Your task to perform on an android device: Go to CNN.com Image 0: 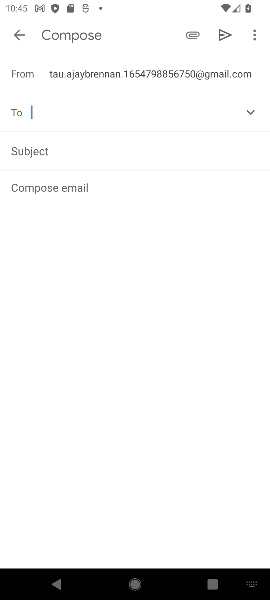
Step 0: press home button
Your task to perform on an android device: Go to CNN.com Image 1: 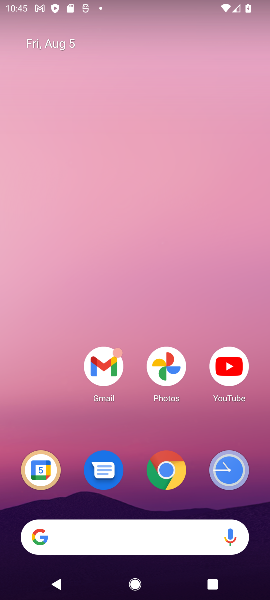
Step 1: drag from (154, 518) to (130, 135)
Your task to perform on an android device: Go to CNN.com Image 2: 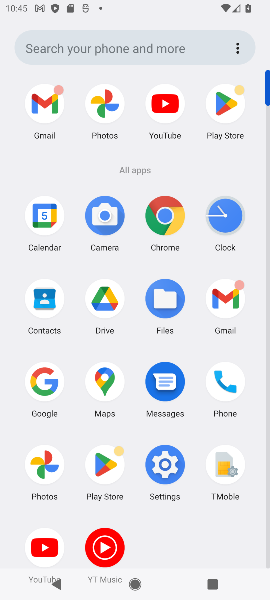
Step 2: click (54, 378)
Your task to perform on an android device: Go to CNN.com Image 3: 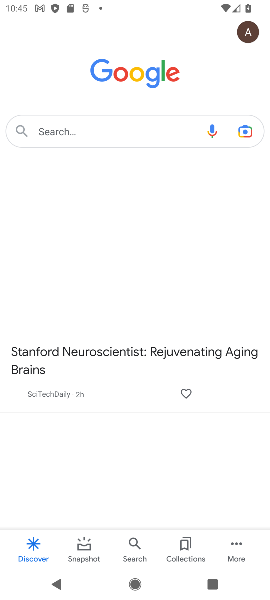
Step 3: click (117, 126)
Your task to perform on an android device: Go to CNN.com Image 4: 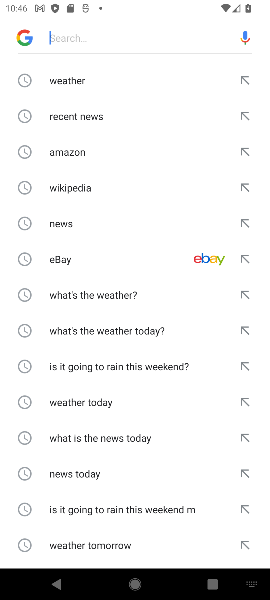
Step 4: drag from (98, 472) to (98, 156)
Your task to perform on an android device: Go to CNN.com Image 5: 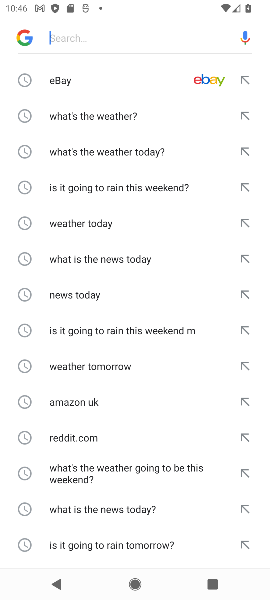
Step 5: drag from (90, 549) to (110, 276)
Your task to perform on an android device: Go to CNN.com Image 6: 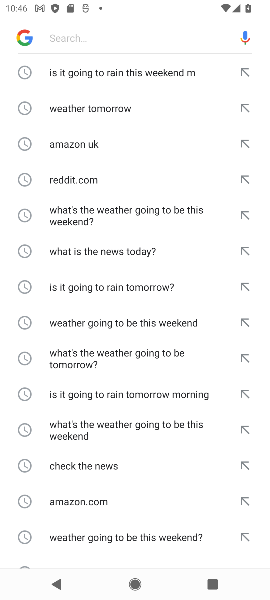
Step 6: drag from (79, 541) to (117, 262)
Your task to perform on an android device: Go to CNN.com Image 7: 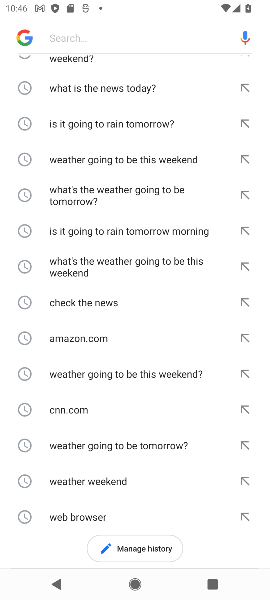
Step 7: click (66, 410)
Your task to perform on an android device: Go to CNN.com Image 8: 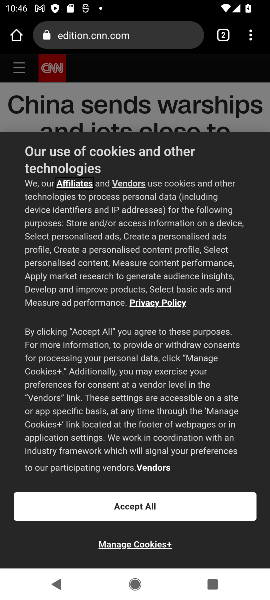
Step 8: task complete